Your task to perform on an android device: Open Youtube and go to "Your channel" Image 0: 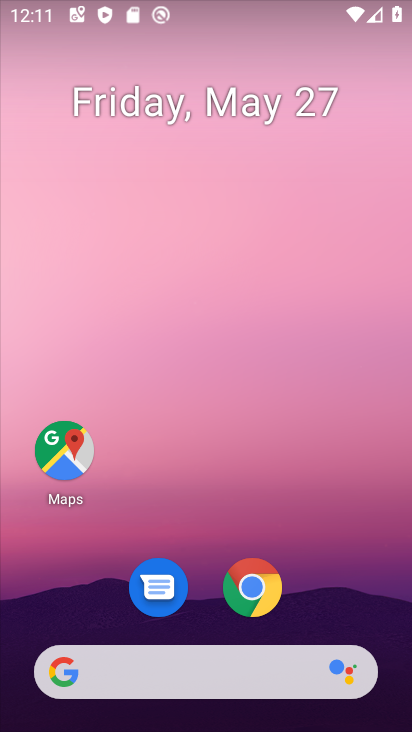
Step 0: drag from (132, 640) to (141, 85)
Your task to perform on an android device: Open Youtube and go to "Your channel" Image 1: 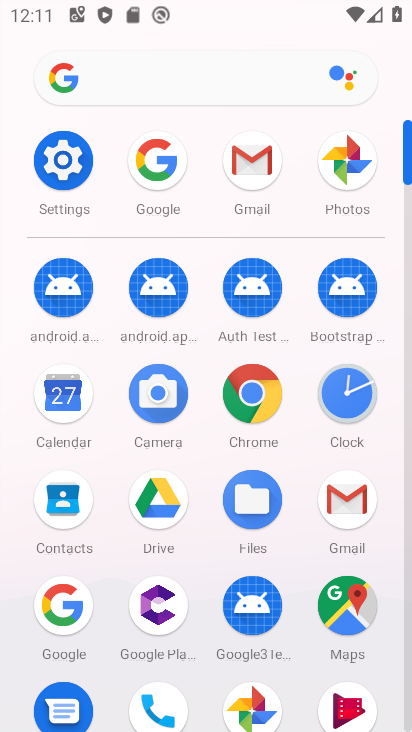
Step 1: drag from (295, 690) to (300, 266)
Your task to perform on an android device: Open Youtube and go to "Your channel" Image 2: 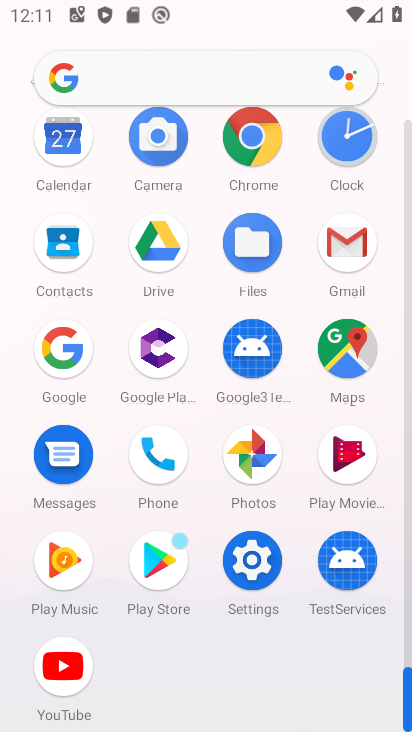
Step 2: click (61, 671)
Your task to perform on an android device: Open Youtube and go to "Your channel" Image 3: 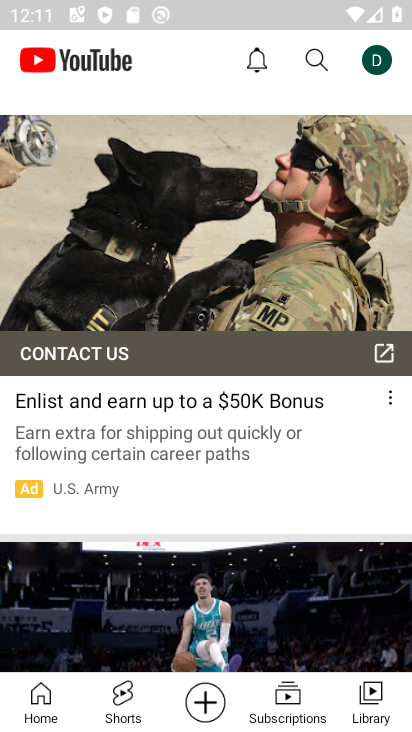
Step 3: click (386, 62)
Your task to perform on an android device: Open Youtube and go to "Your channel" Image 4: 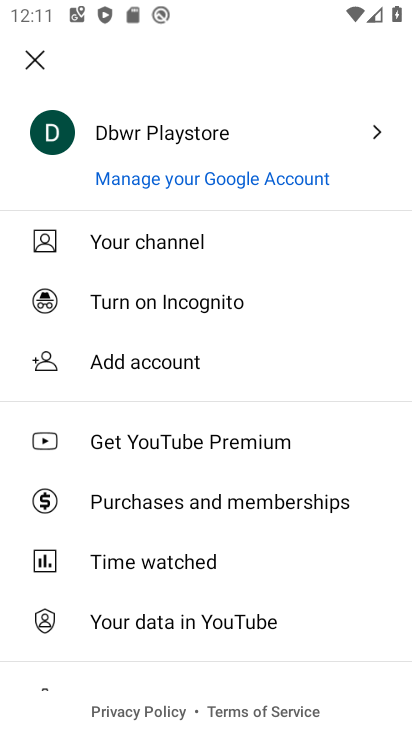
Step 4: click (193, 245)
Your task to perform on an android device: Open Youtube and go to "Your channel" Image 5: 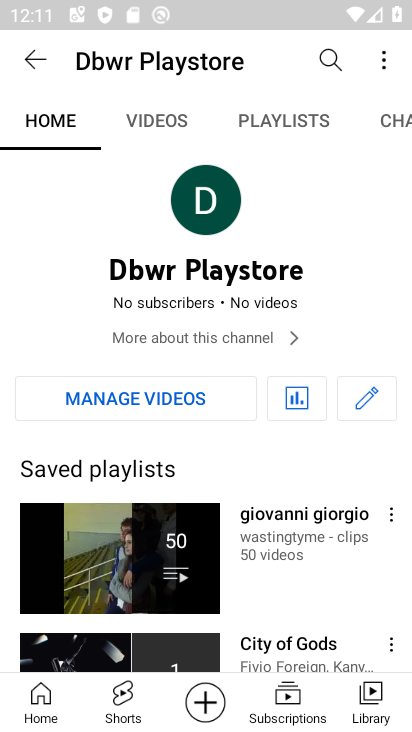
Step 5: drag from (276, 614) to (321, 260)
Your task to perform on an android device: Open Youtube and go to "Your channel" Image 6: 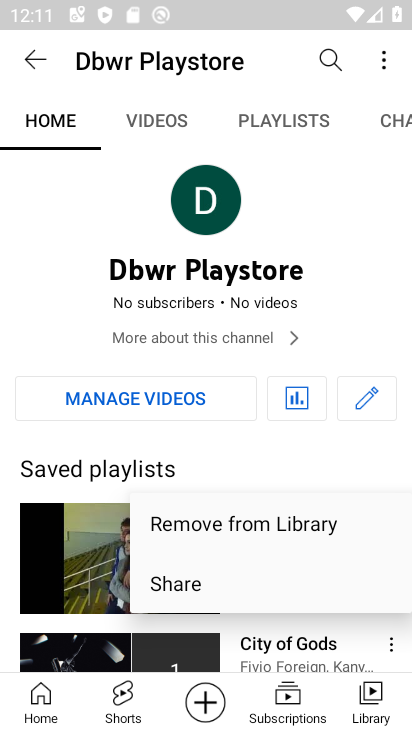
Step 6: click (323, 257)
Your task to perform on an android device: Open Youtube and go to "Your channel" Image 7: 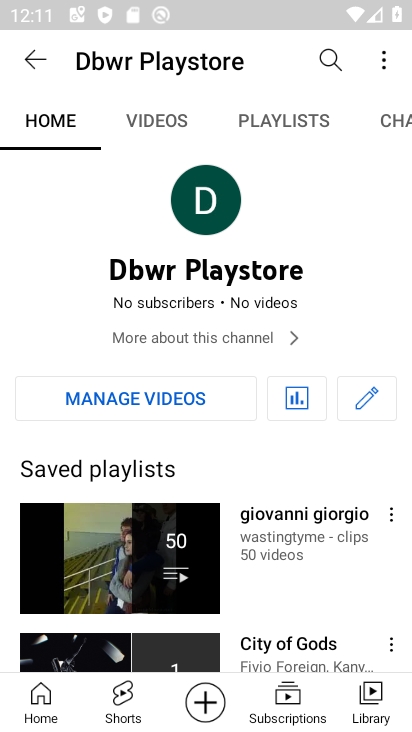
Step 7: drag from (203, 630) to (305, 234)
Your task to perform on an android device: Open Youtube and go to "Your channel" Image 8: 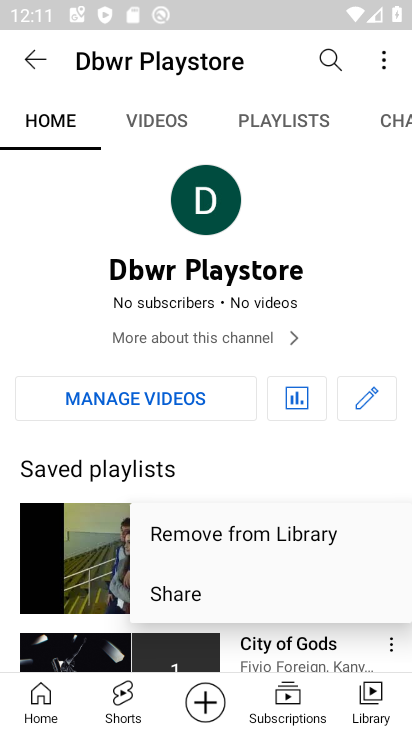
Step 8: click (307, 242)
Your task to perform on an android device: Open Youtube and go to "Your channel" Image 9: 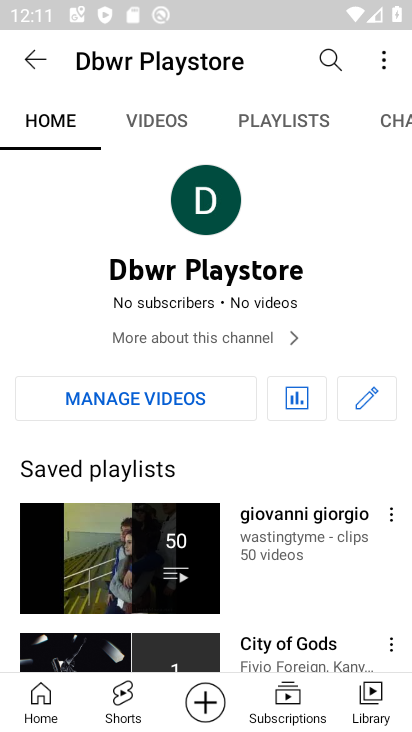
Step 9: task complete